Your task to perform on an android device: Open Maps and search for coffee Image 0: 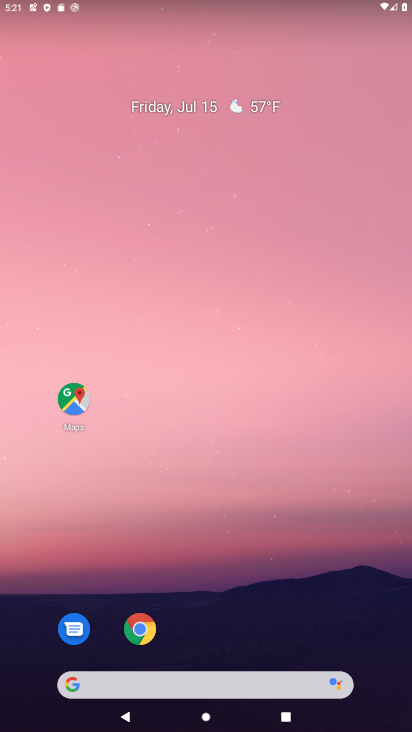
Step 0: press home button
Your task to perform on an android device: Open Maps and search for coffee Image 1: 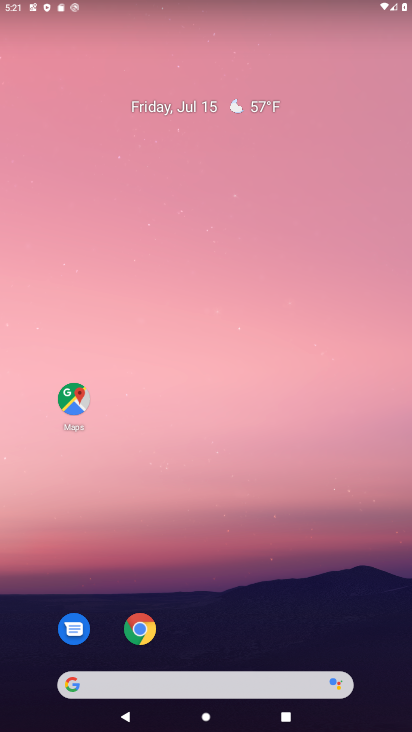
Step 1: click (68, 393)
Your task to perform on an android device: Open Maps and search for coffee Image 2: 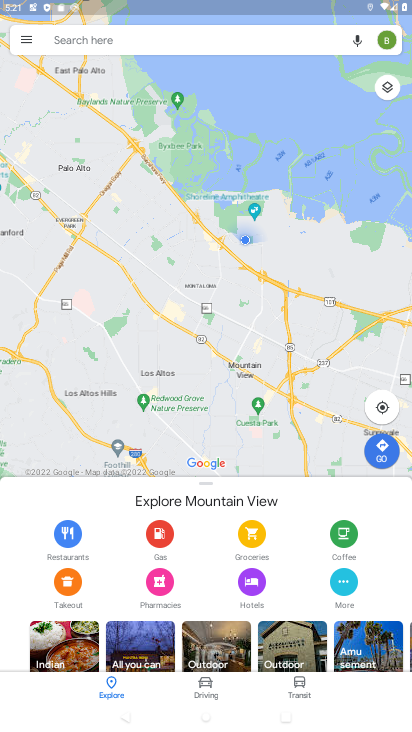
Step 2: click (112, 45)
Your task to perform on an android device: Open Maps and search for coffee Image 3: 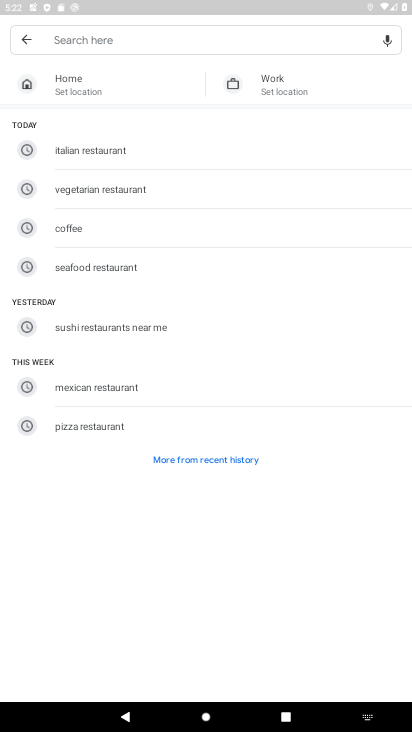
Step 3: click (70, 227)
Your task to perform on an android device: Open Maps and search for coffee Image 4: 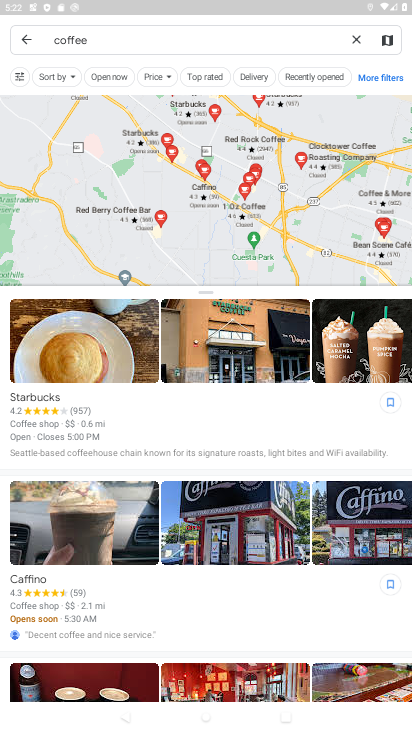
Step 4: task complete